Your task to perform on an android device: turn on showing notifications on the lock screen Image 0: 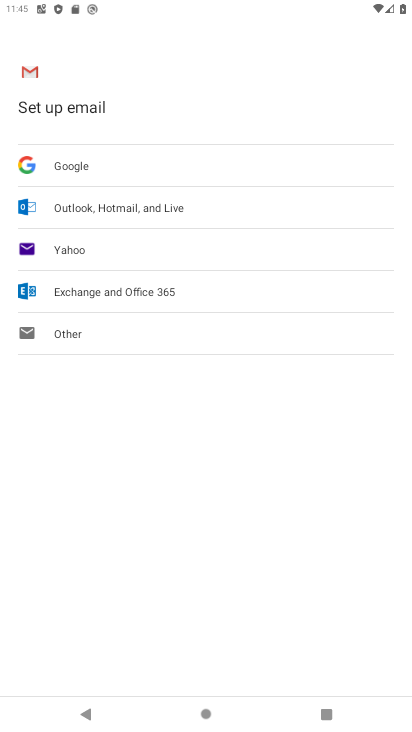
Step 0: press home button
Your task to perform on an android device: turn on showing notifications on the lock screen Image 1: 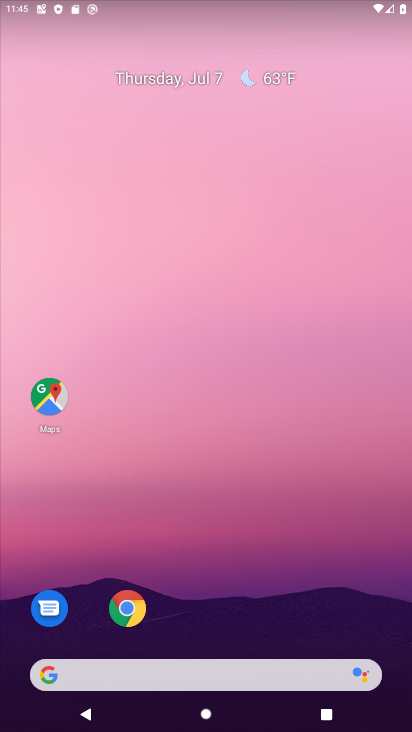
Step 1: drag from (41, 612) to (232, 121)
Your task to perform on an android device: turn on showing notifications on the lock screen Image 2: 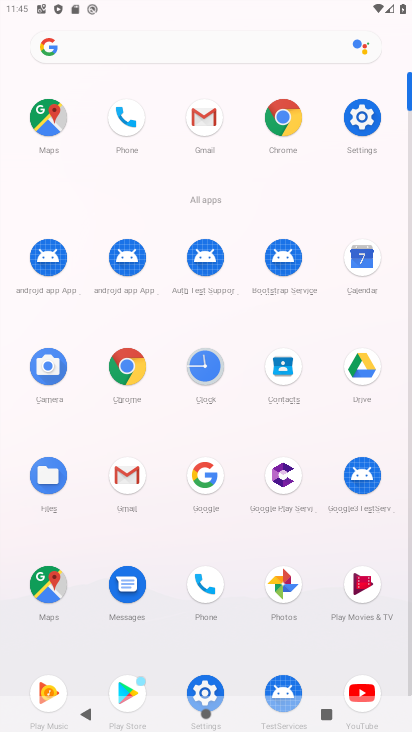
Step 2: click (359, 131)
Your task to perform on an android device: turn on showing notifications on the lock screen Image 3: 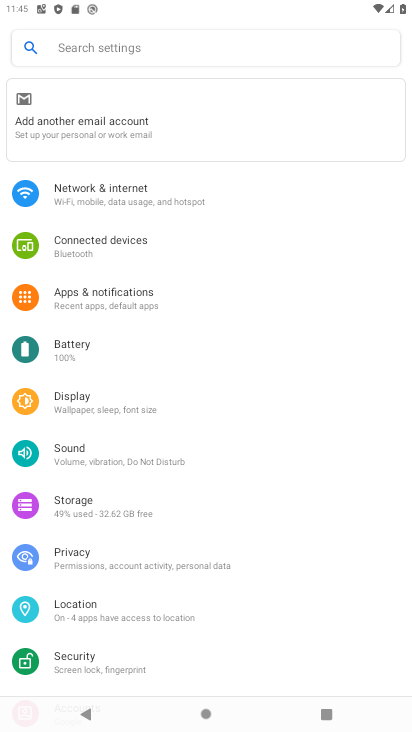
Step 3: click (187, 294)
Your task to perform on an android device: turn on showing notifications on the lock screen Image 4: 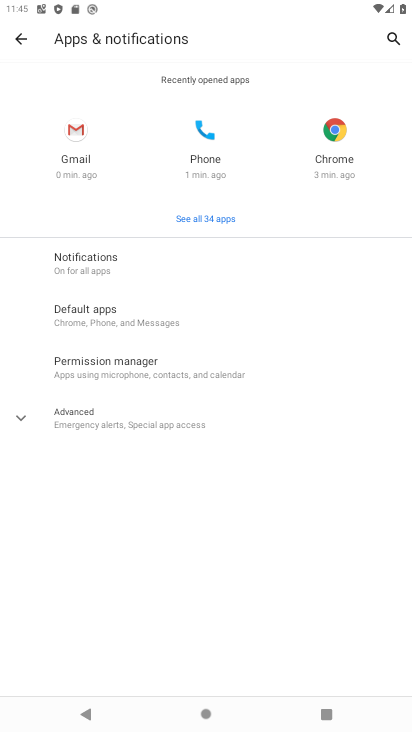
Step 4: click (170, 263)
Your task to perform on an android device: turn on showing notifications on the lock screen Image 5: 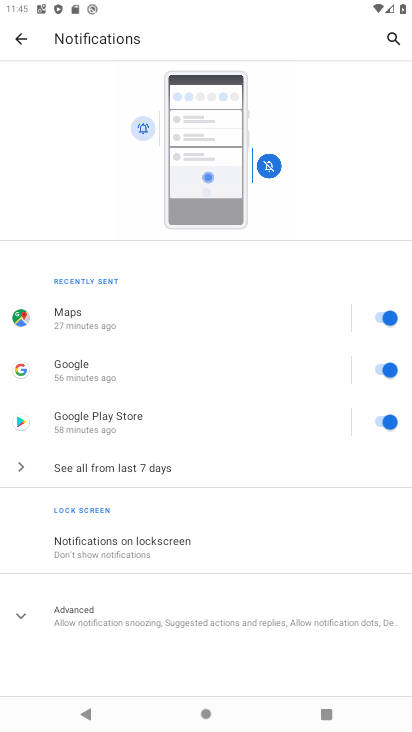
Step 5: click (202, 535)
Your task to perform on an android device: turn on showing notifications on the lock screen Image 6: 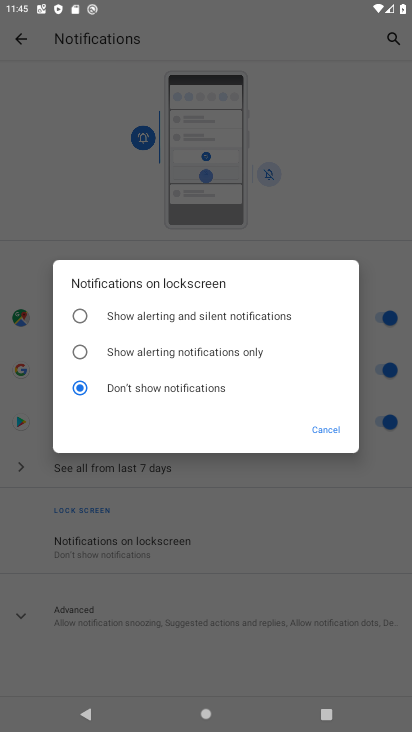
Step 6: click (183, 317)
Your task to perform on an android device: turn on showing notifications on the lock screen Image 7: 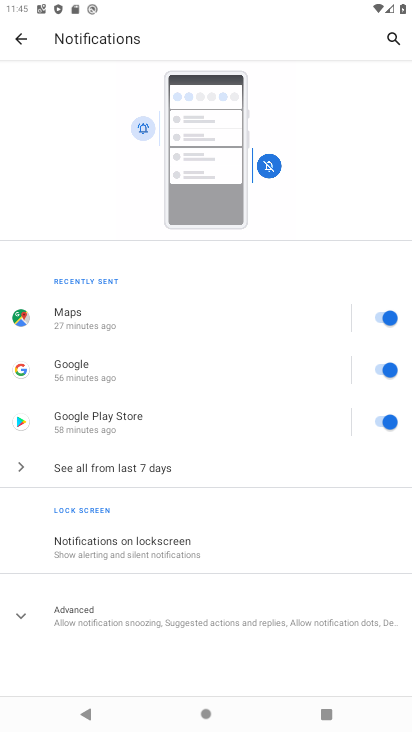
Step 7: task complete